Your task to perform on an android device: What's on my calendar today? Image 0: 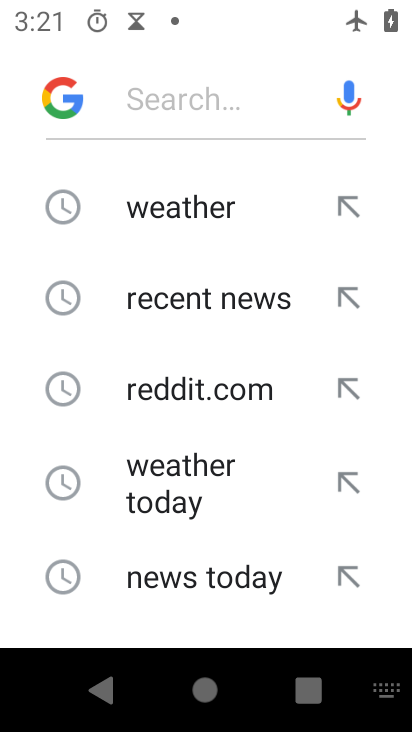
Step 0: press home button
Your task to perform on an android device: What's on my calendar today? Image 1: 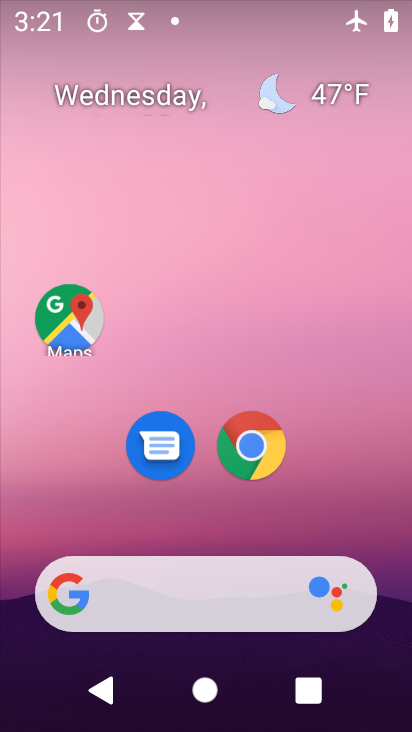
Step 1: drag from (347, 510) to (349, 12)
Your task to perform on an android device: What's on my calendar today? Image 2: 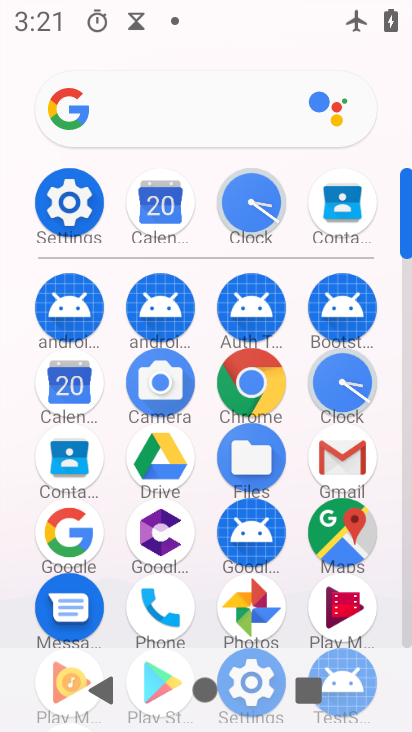
Step 2: click (146, 206)
Your task to perform on an android device: What's on my calendar today? Image 3: 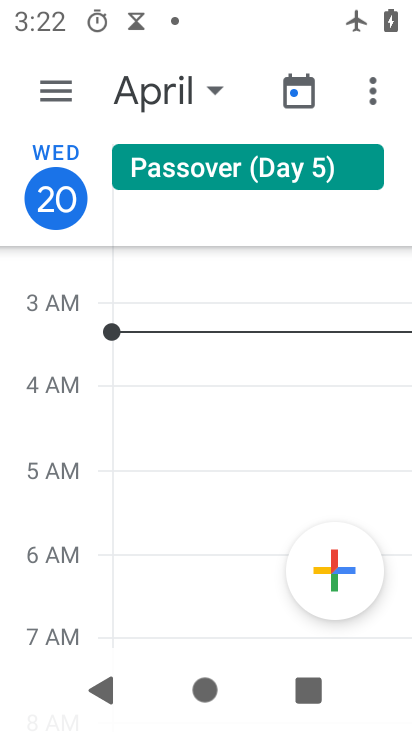
Step 3: click (211, 99)
Your task to perform on an android device: What's on my calendar today? Image 4: 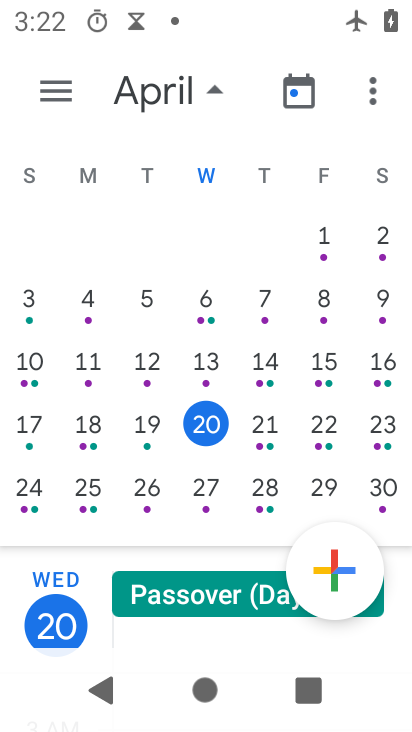
Step 4: click (211, 420)
Your task to perform on an android device: What's on my calendar today? Image 5: 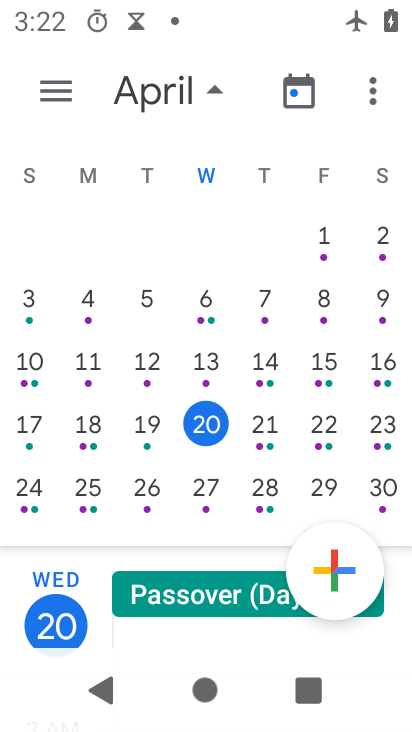
Step 5: click (209, 427)
Your task to perform on an android device: What's on my calendar today? Image 6: 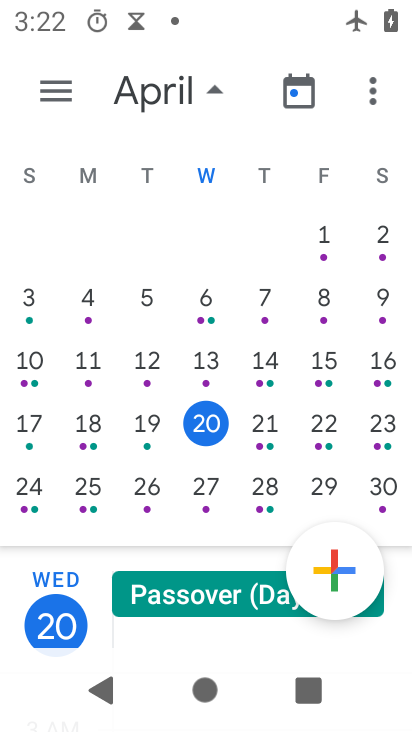
Step 6: drag from (176, 540) to (183, 207)
Your task to perform on an android device: What's on my calendar today? Image 7: 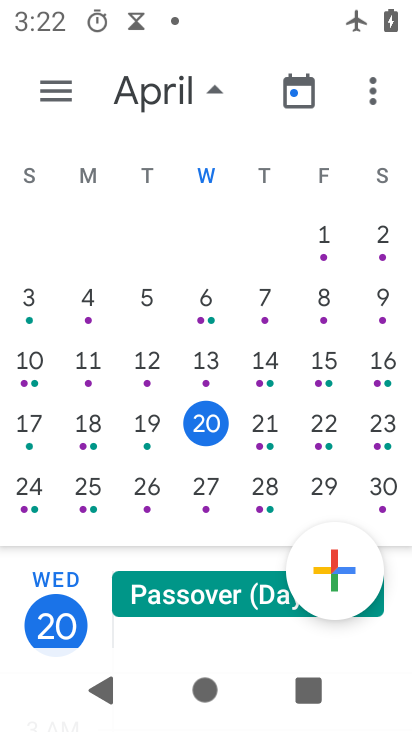
Step 7: drag from (147, 571) to (179, 251)
Your task to perform on an android device: What's on my calendar today? Image 8: 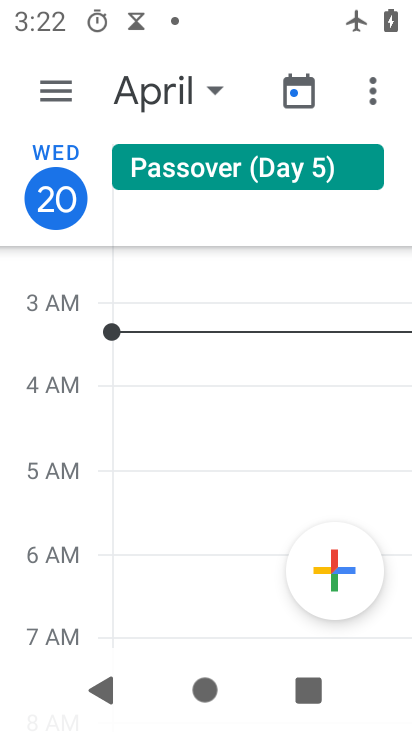
Step 8: drag from (156, 466) to (177, 208)
Your task to perform on an android device: What's on my calendar today? Image 9: 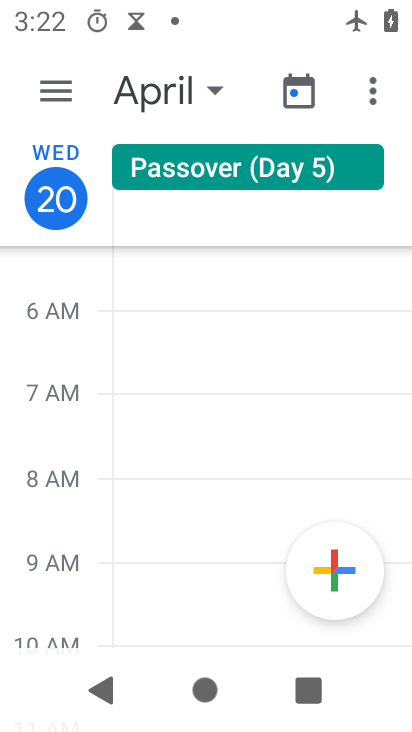
Step 9: drag from (172, 517) to (201, 209)
Your task to perform on an android device: What's on my calendar today? Image 10: 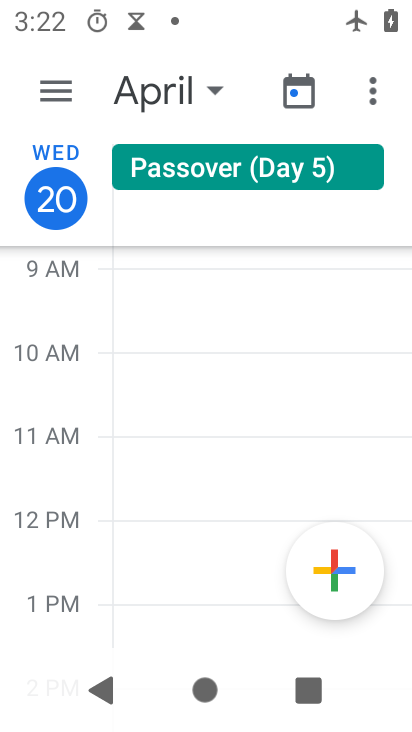
Step 10: drag from (197, 500) to (208, 216)
Your task to perform on an android device: What's on my calendar today? Image 11: 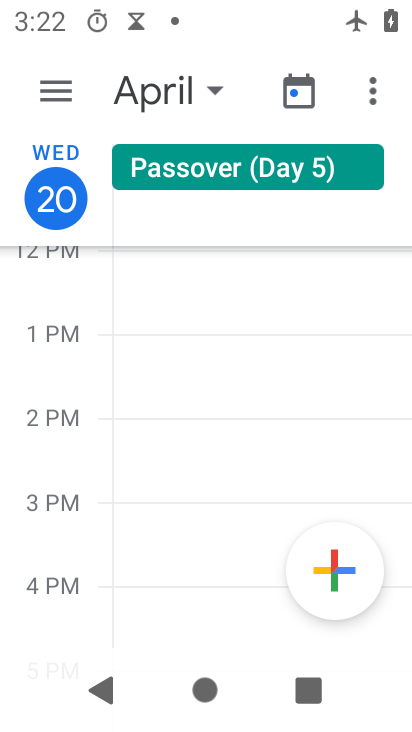
Step 11: drag from (193, 523) to (197, 256)
Your task to perform on an android device: What's on my calendar today? Image 12: 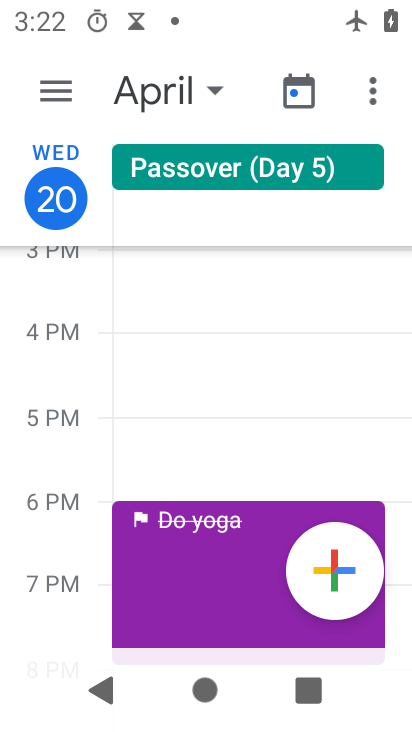
Step 12: click (199, 556)
Your task to perform on an android device: What's on my calendar today? Image 13: 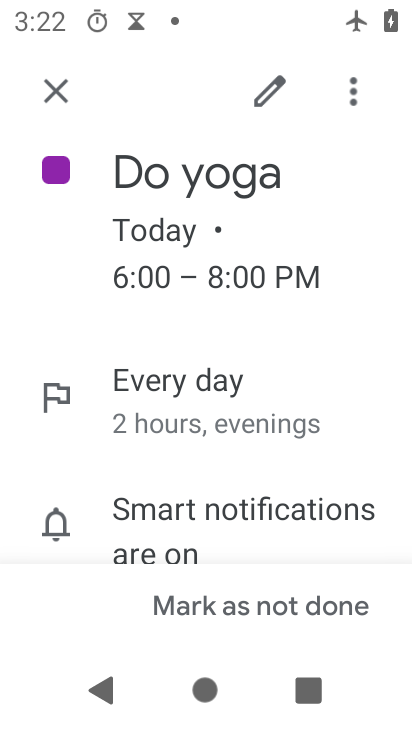
Step 13: task complete